Your task to perform on an android device: Open ESPN.com Image 0: 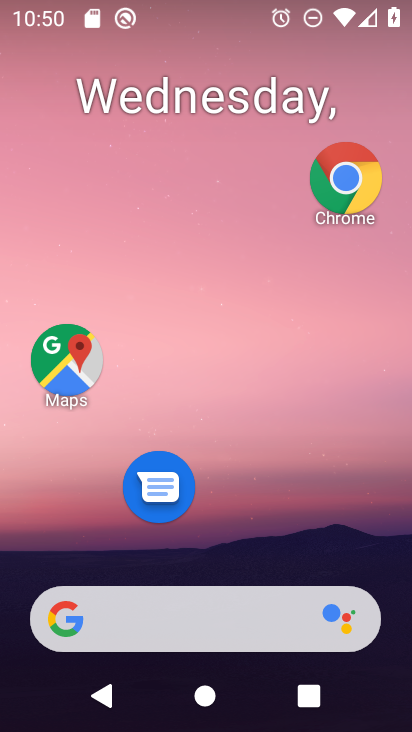
Step 0: drag from (263, 593) to (404, 155)
Your task to perform on an android device: Open ESPN.com Image 1: 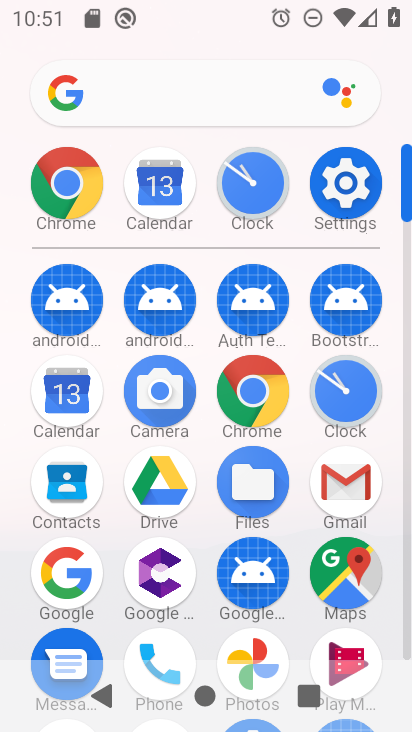
Step 1: click (249, 405)
Your task to perform on an android device: Open ESPN.com Image 2: 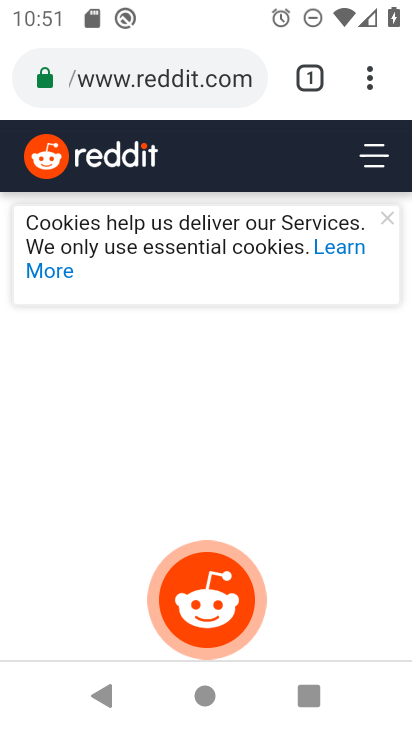
Step 2: click (191, 87)
Your task to perform on an android device: Open ESPN.com Image 3: 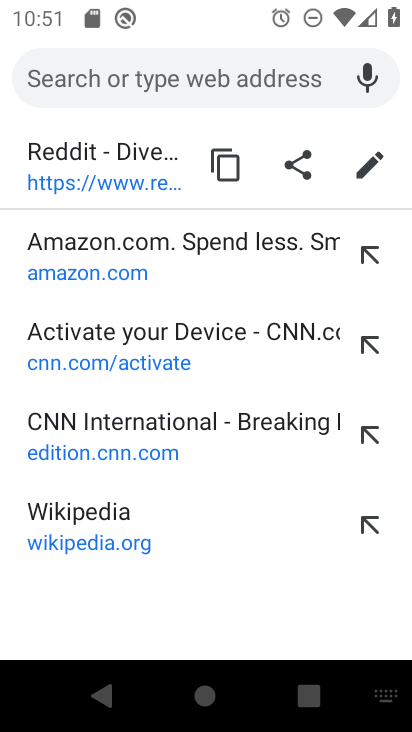
Step 3: type "espn"
Your task to perform on an android device: Open ESPN.com Image 4: 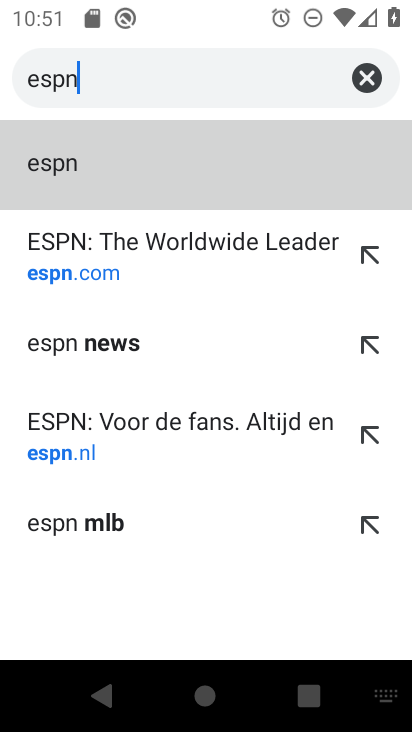
Step 4: click (272, 248)
Your task to perform on an android device: Open ESPN.com Image 5: 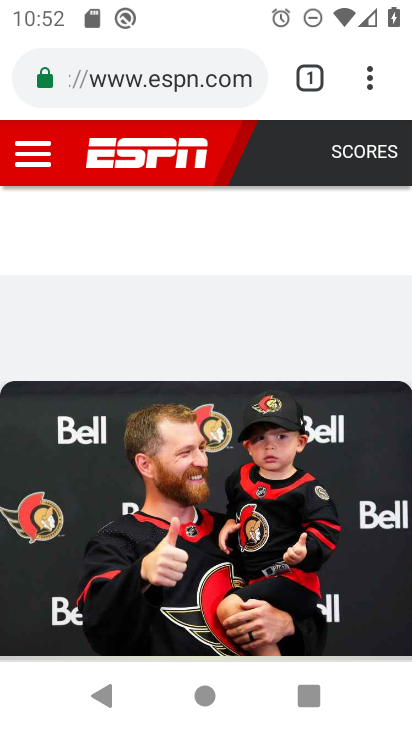
Step 5: task complete